Your task to perform on an android device: Go to notification settings Image 0: 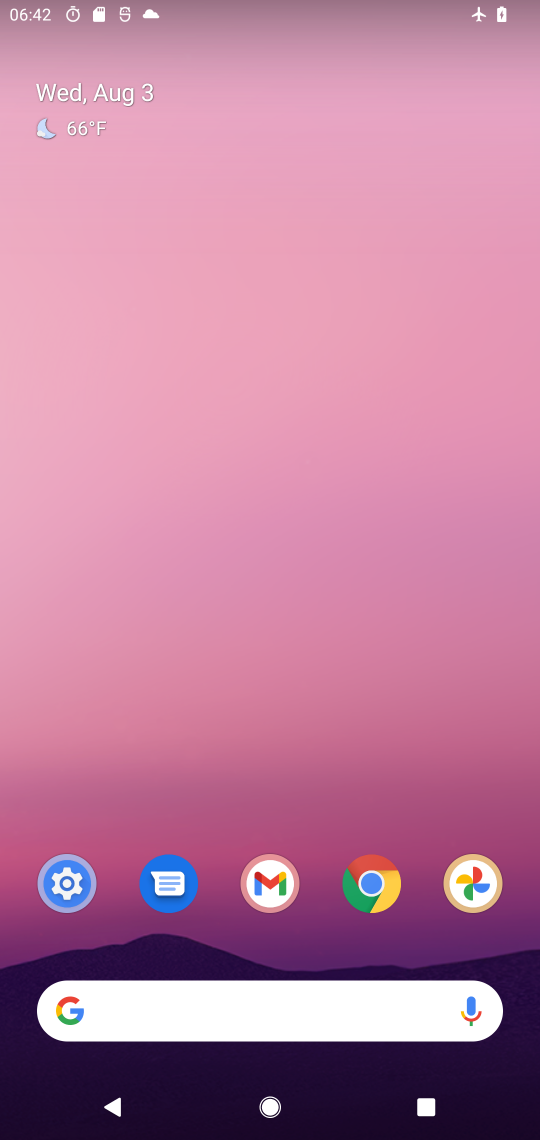
Step 0: drag from (246, 822) to (324, 290)
Your task to perform on an android device: Go to notification settings Image 1: 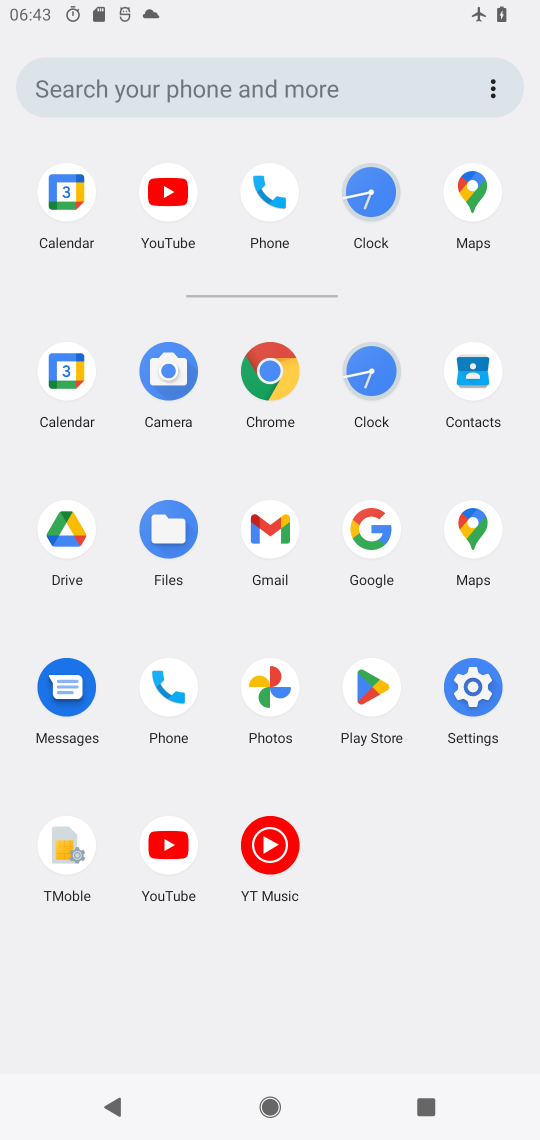
Step 1: click (472, 707)
Your task to perform on an android device: Go to notification settings Image 2: 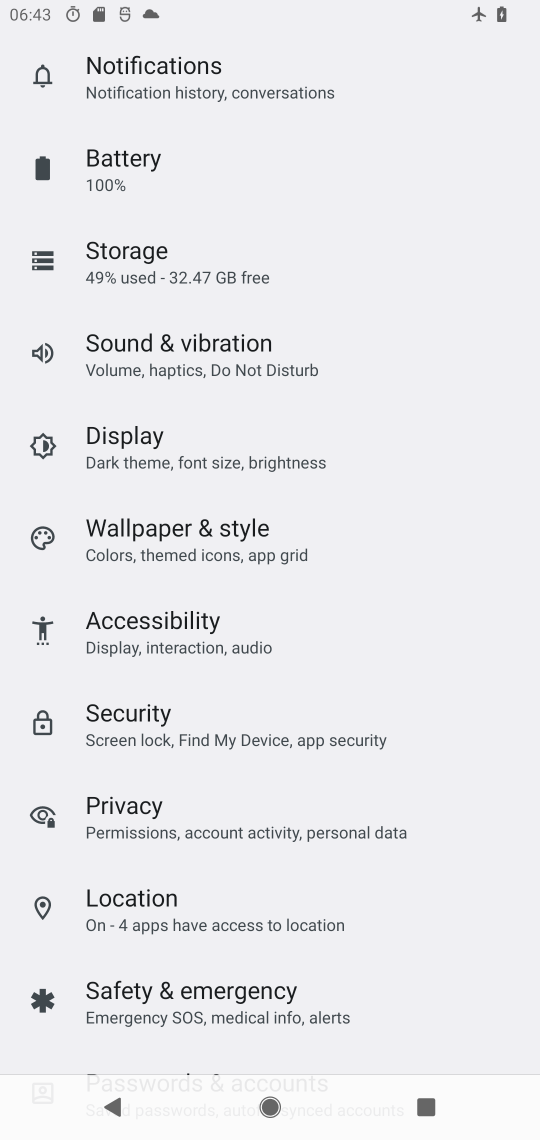
Step 2: click (135, 78)
Your task to perform on an android device: Go to notification settings Image 3: 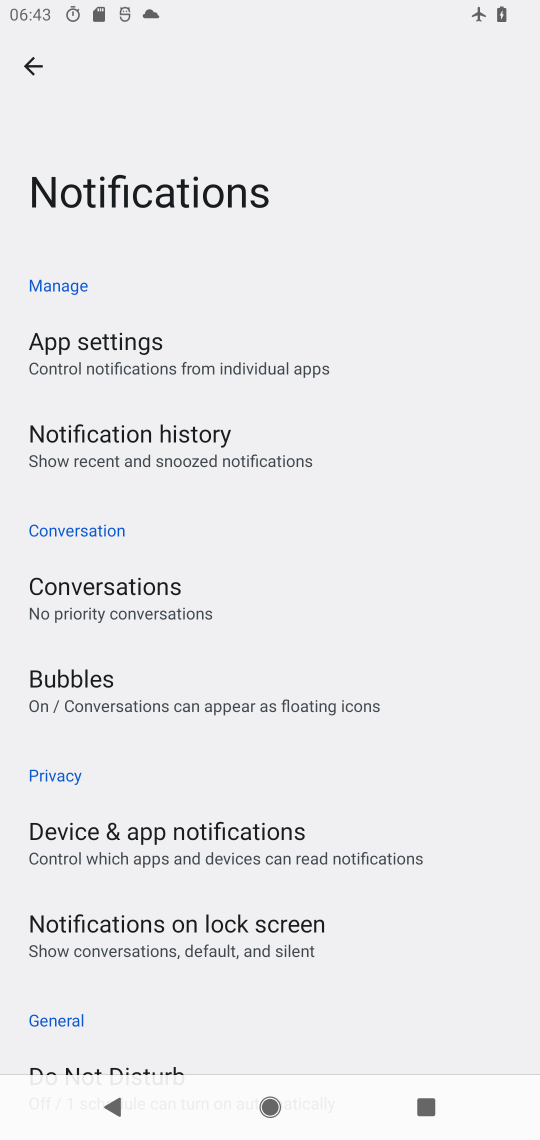
Step 3: task complete